Your task to perform on an android device: Open calendar and show me the fourth week of next month Image 0: 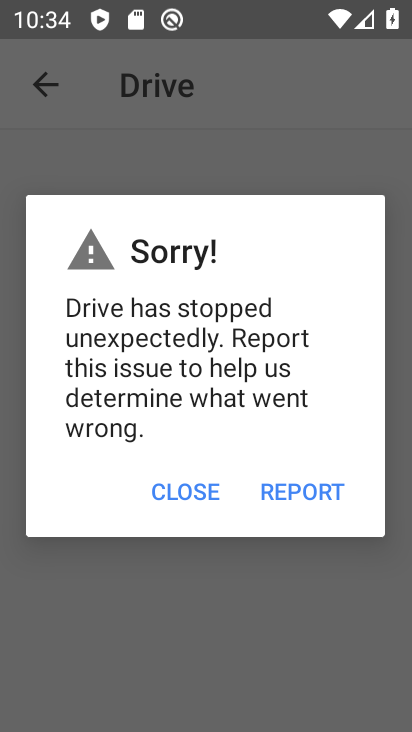
Step 0: press home button
Your task to perform on an android device: Open calendar and show me the fourth week of next month Image 1: 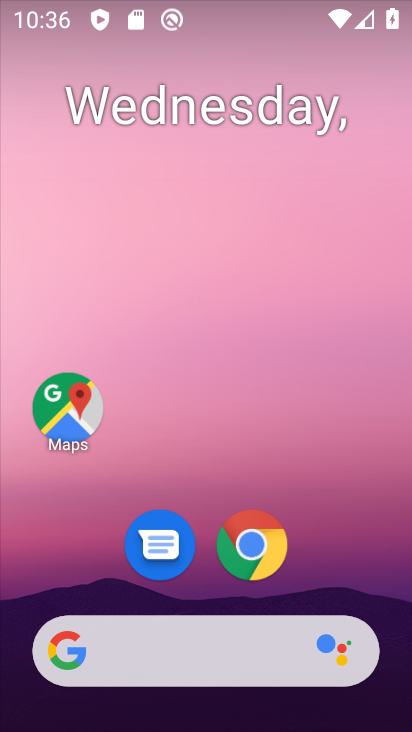
Step 1: click (158, 160)
Your task to perform on an android device: Open calendar and show me the fourth week of next month Image 2: 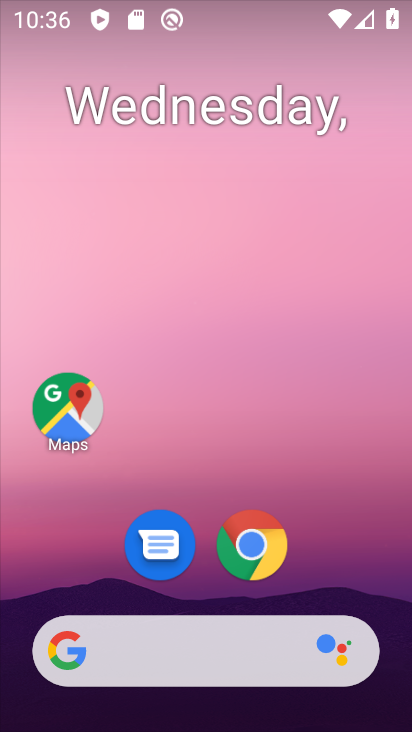
Step 2: drag from (195, 681) to (159, 98)
Your task to perform on an android device: Open calendar and show me the fourth week of next month Image 3: 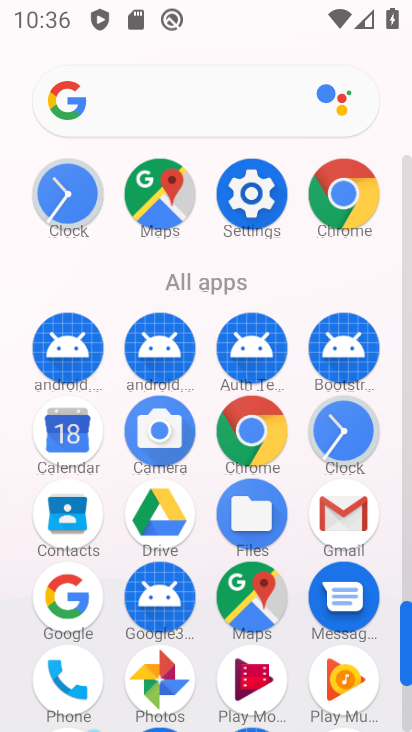
Step 3: click (46, 427)
Your task to perform on an android device: Open calendar and show me the fourth week of next month Image 4: 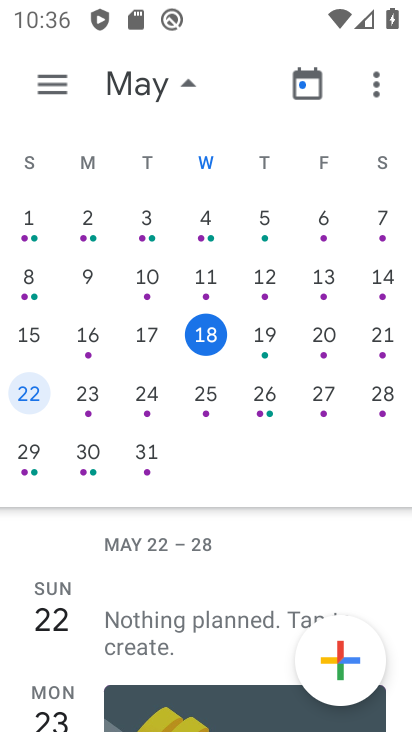
Step 4: drag from (355, 335) to (37, 327)
Your task to perform on an android device: Open calendar and show me the fourth week of next month Image 5: 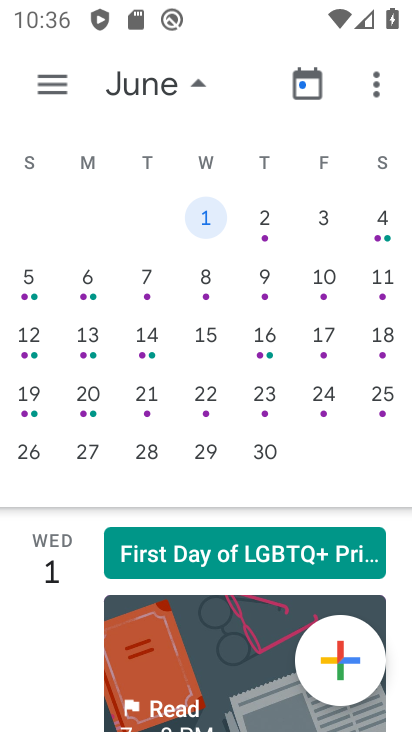
Step 5: click (25, 393)
Your task to perform on an android device: Open calendar and show me the fourth week of next month Image 6: 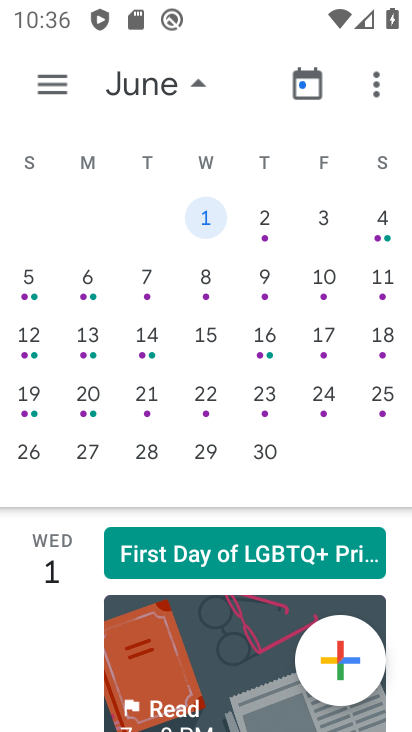
Step 6: click (30, 402)
Your task to perform on an android device: Open calendar and show me the fourth week of next month Image 7: 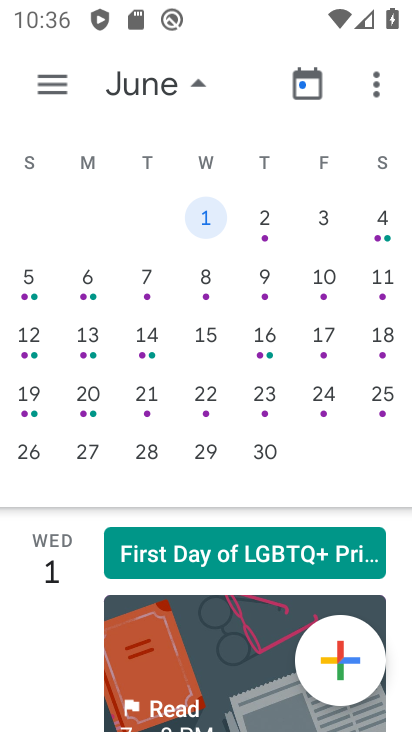
Step 7: click (30, 396)
Your task to perform on an android device: Open calendar and show me the fourth week of next month Image 8: 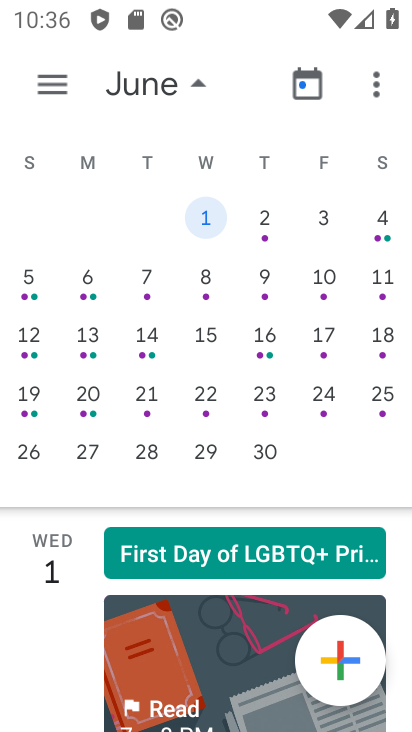
Step 8: click (31, 394)
Your task to perform on an android device: Open calendar and show me the fourth week of next month Image 9: 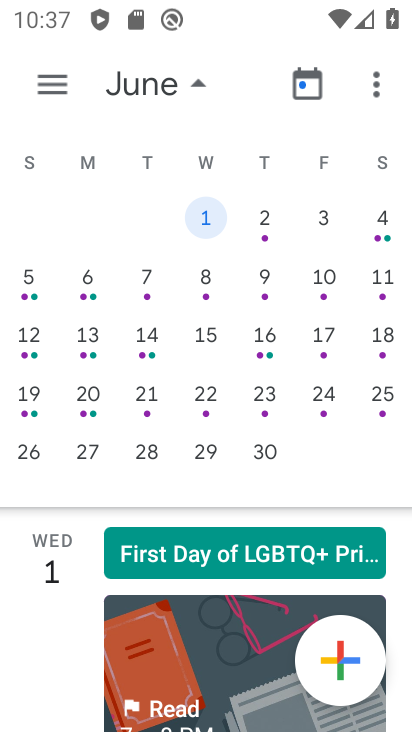
Step 9: click (31, 394)
Your task to perform on an android device: Open calendar and show me the fourth week of next month Image 10: 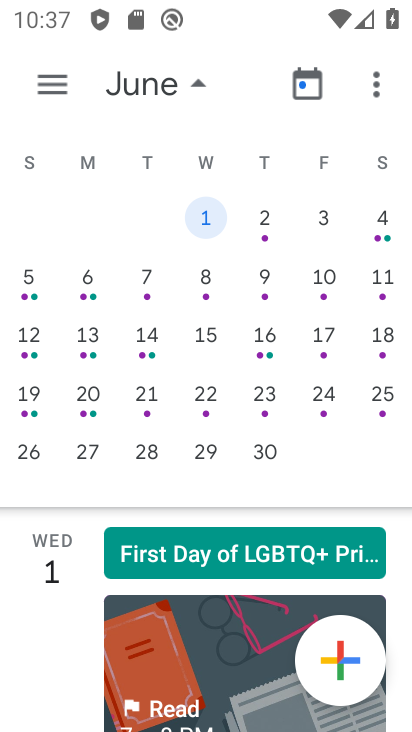
Step 10: click (37, 391)
Your task to perform on an android device: Open calendar and show me the fourth week of next month Image 11: 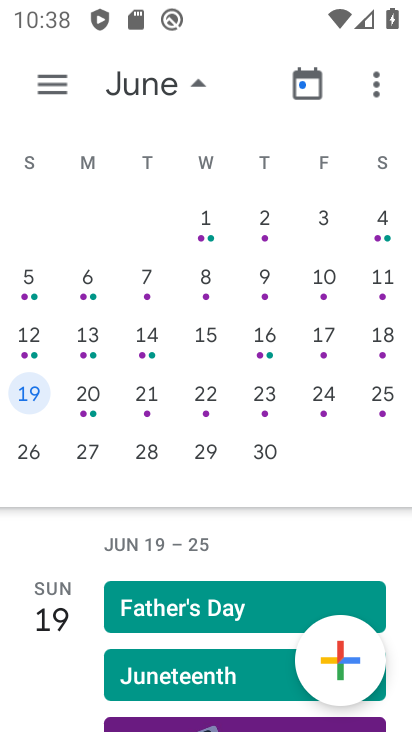
Step 11: task complete